Your task to perform on an android device: turn on wifi Image 0: 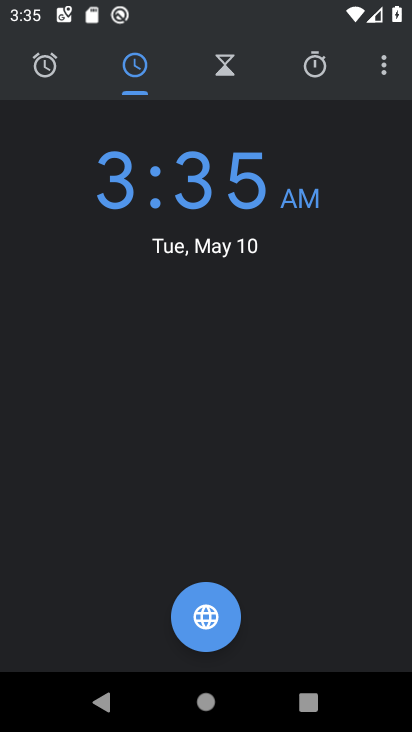
Step 0: press home button
Your task to perform on an android device: turn on wifi Image 1: 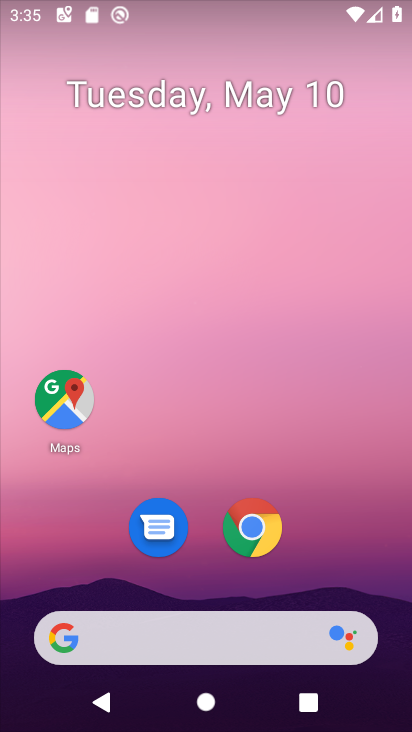
Step 1: drag from (378, 529) to (352, 339)
Your task to perform on an android device: turn on wifi Image 2: 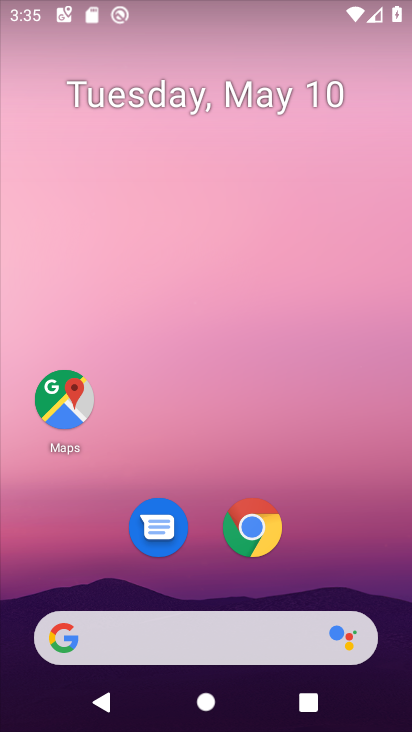
Step 2: drag from (401, 665) to (368, 279)
Your task to perform on an android device: turn on wifi Image 3: 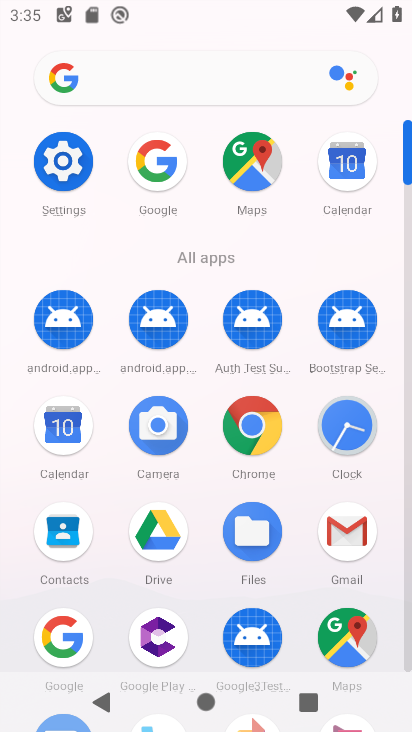
Step 3: click (347, 441)
Your task to perform on an android device: turn on wifi Image 4: 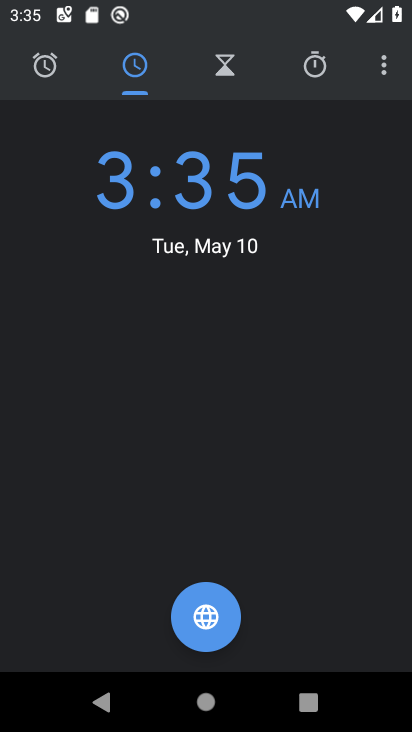
Step 4: press home button
Your task to perform on an android device: turn on wifi Image 5: 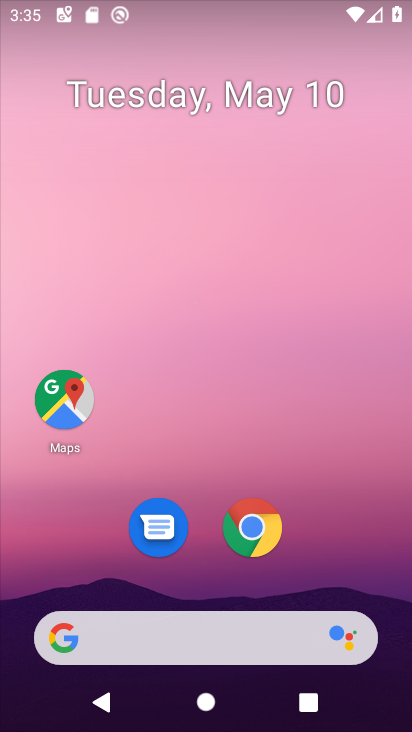
Step 5: drag from (385, 565) to (363, 248)
Your task to perform on an android device: turn on wifi Image 6: 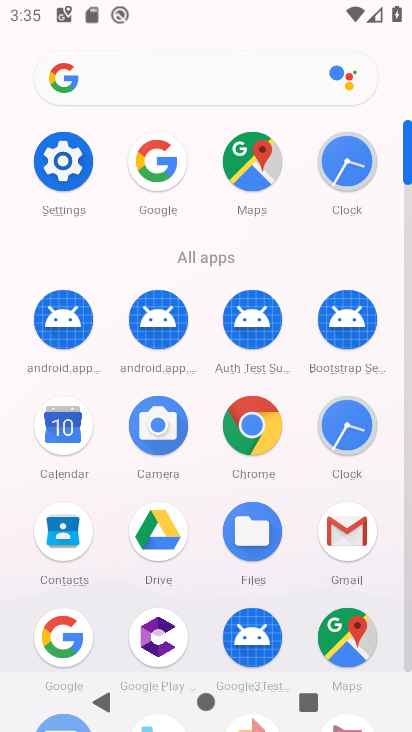
Step 6: click (46, 161)
Your task to perform on an android device: turn on wifi Image 7: 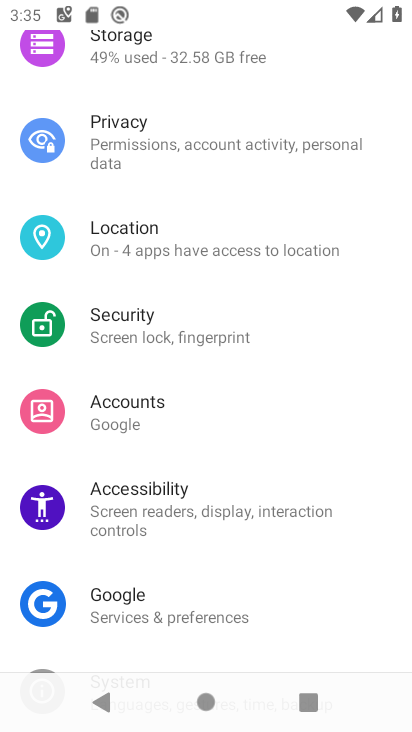
Step 7: drag from (396, 94) to (384, 415)
Your task to perform on an android device: turn on wifi Image 8: 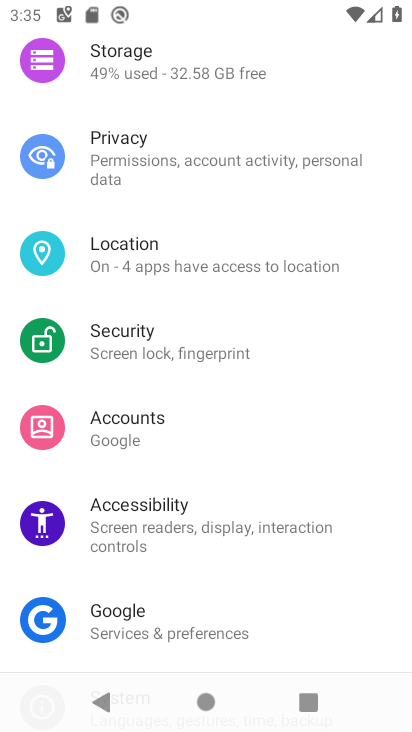
Step 8: drag from (369, 70) to (355, 449)
Your task to perform on an android device: turn on wifi Image 9: 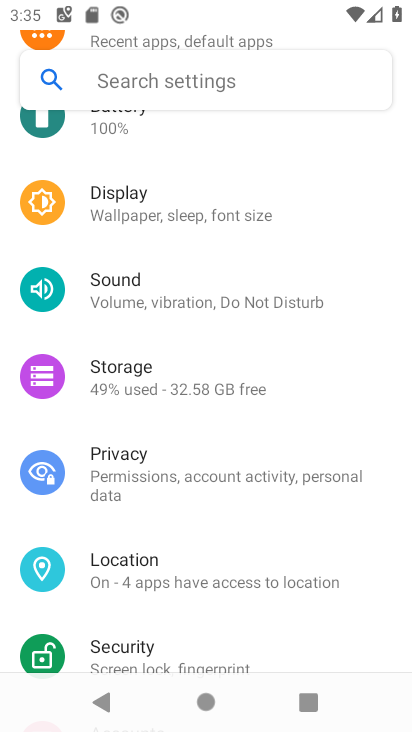
Step 9: drag from (364, 208) to (374, 515)
Your task to perform on an android device: turn on wifi Image 10: 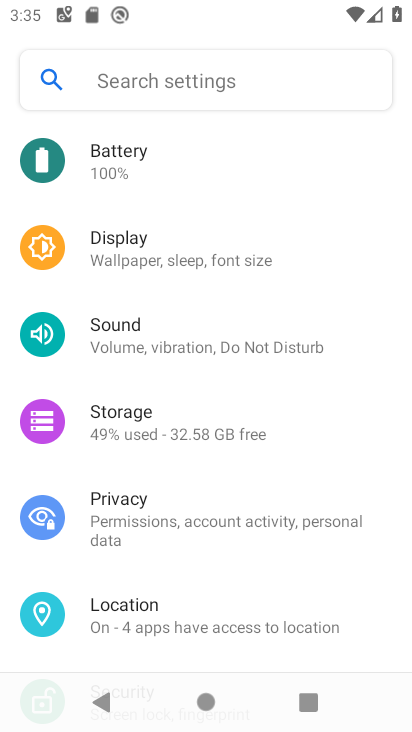
Step 10: drag from (378, 230) to (370, 731)
Your task to perform on an android device: turn on wifi Image 11: 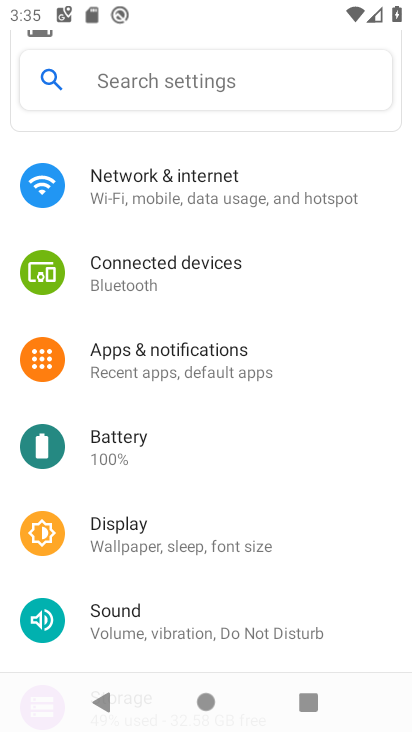
Step 11: click (179, 183)
Your task to perform on an android device: turn on wifi Image 12: 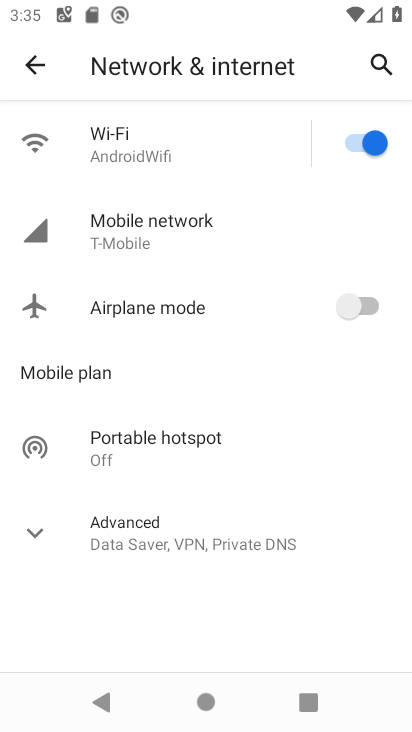
Step 12: task complete